Your task to perform on an android device: Open Youtube and go to "Your channel" Image 0: 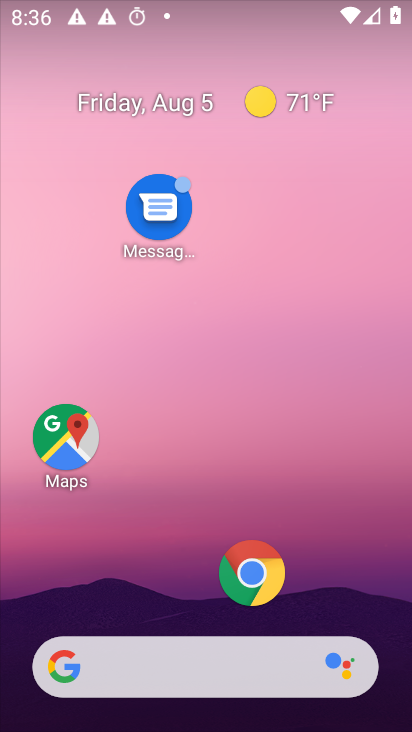
Step 0: press home button
Your task to perform on an android device: Open Youtube and go to "Your channel" Image 1: 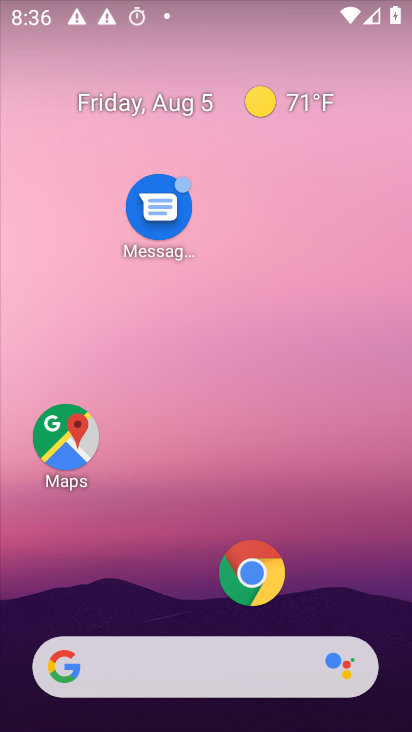
Step 1: drag from (196, 604) to (229, 18)
Your task to perform on an android device: Open Youtube and go to "Your channel" Image 2: 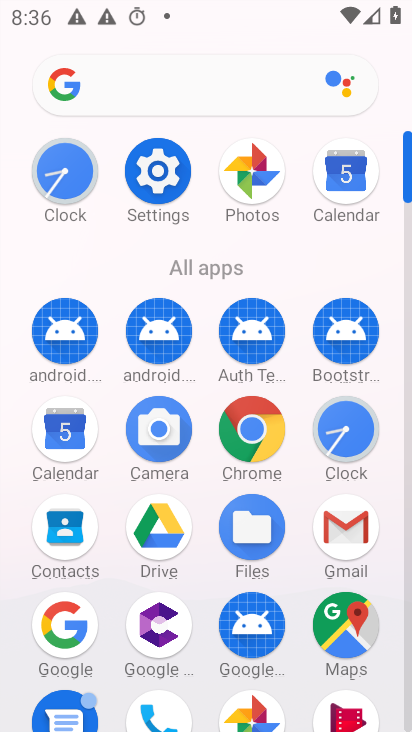
Step 2: drag from (196, 597) to (178, 102)
Your task to perform on an android device: Open Youtube and go to "Your channel" Image 3: 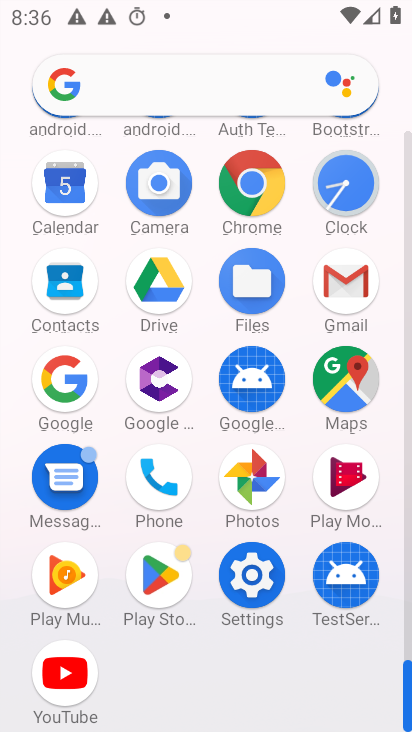
Step 3: click (56, 666)
Your task to perform on an android device: Open Youtube and go to "Your channel" Image 4: 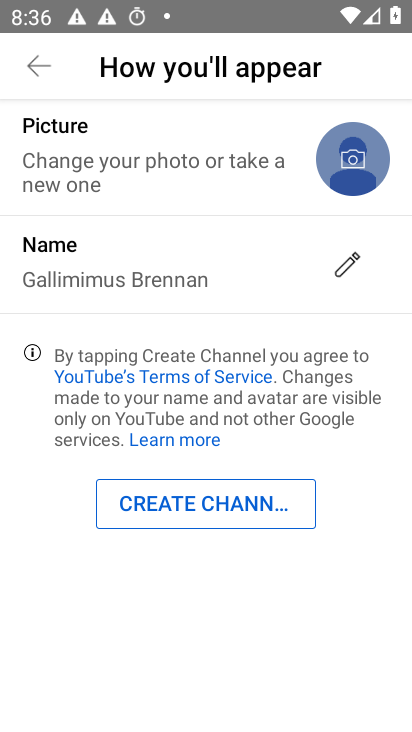
Step 4: task complete